Your task to perform on an android device: allow notifications from all sites in the chrome app Image 0: 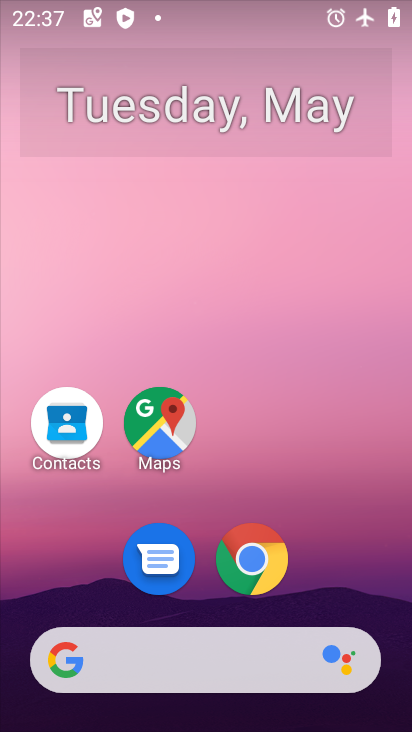
Step 0: click (273, 565)
Your task to perform on an android device: allow notifications from all sites in the chrome app Image 1: 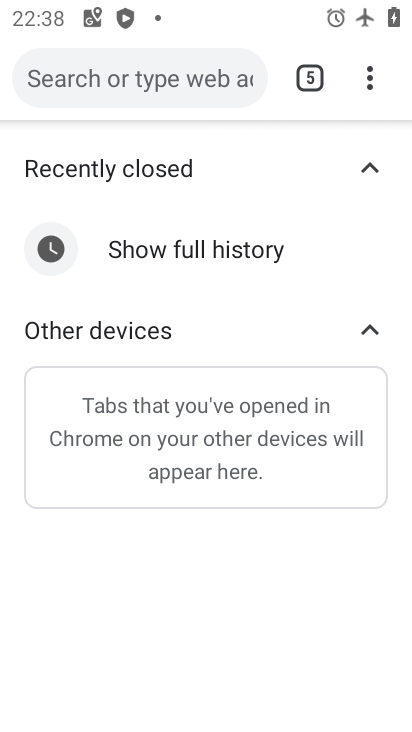
Step 1: task complete